Your task to perform on an android device: turn off location history Image 0: 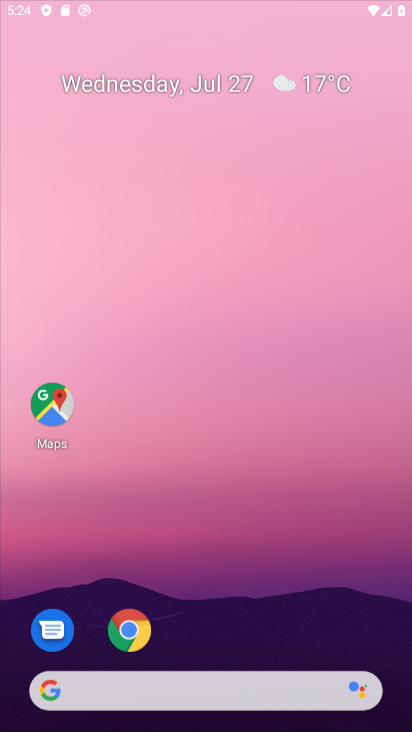
Step 0: press home button
Your task to perform on an android device: turn off location history Image 1: 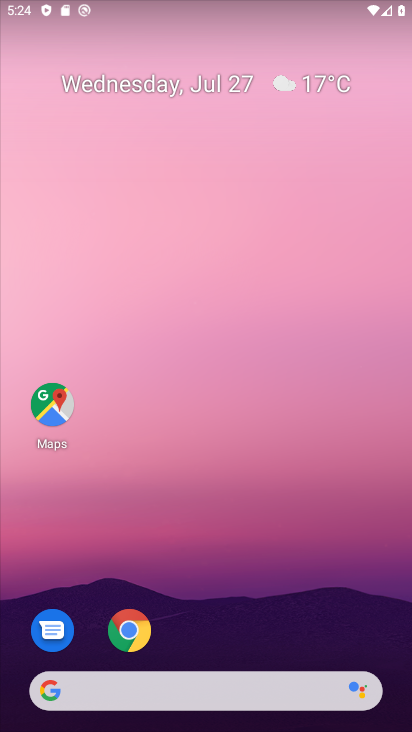
Step 1: drag from (223, 651) to (226, 5)
Your task to perform on an android device: turn off location history Image 2: 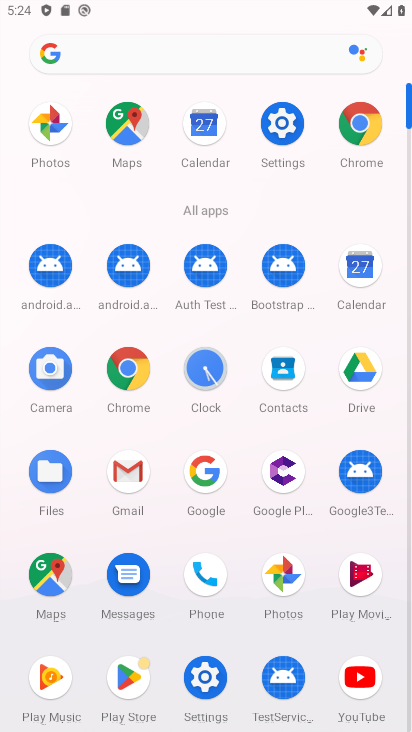
Step 2: click (279, 118)
Your task to perform on an android device: turn off location history Image 3: 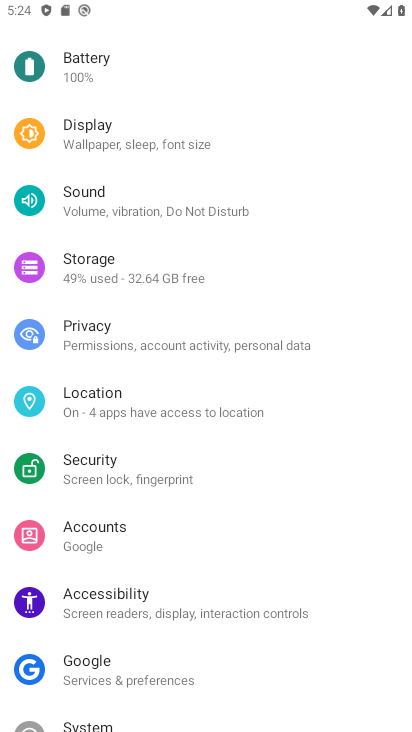
Step 3: click (133, 393)
Your task to perform on an android device: turn off location history Image 4: 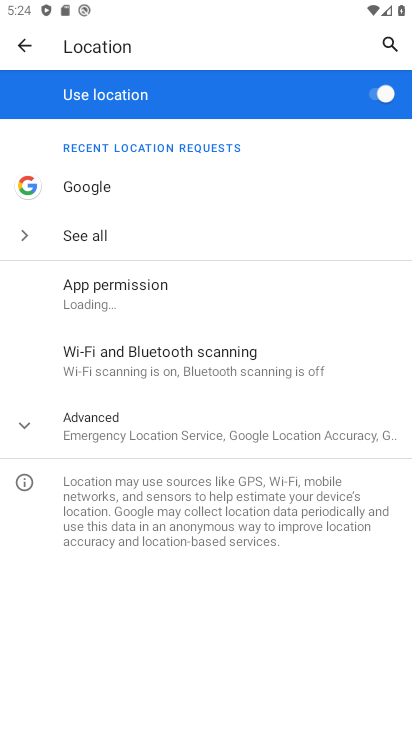
Step 4: click (28, 422)
Your task to perform on an android device: turn off location history Image 5: 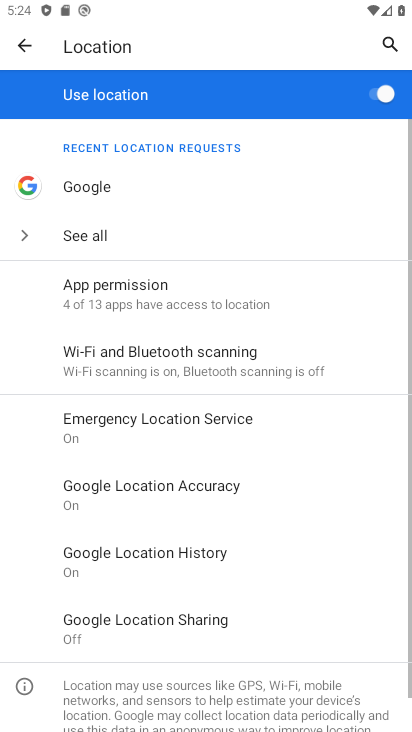
Step 5: click (226, 557)
Your task to perform on an android device: turn off location history Image 6: 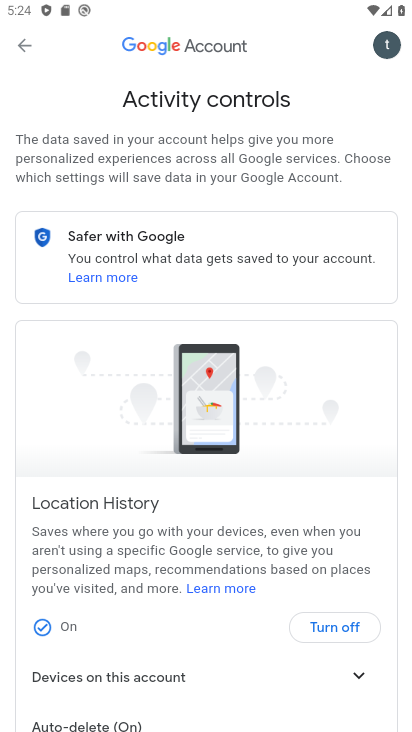
Step 6: click (332, 630)
Your task to perform on an android device: turn off location history Image 7: 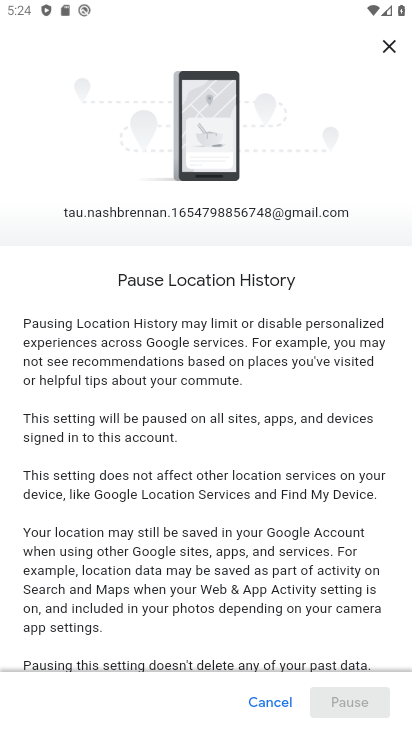
Step 7: drag from (275, 619) to (249, 209)
Your task to perform on an android device: turn off location history Image 8: 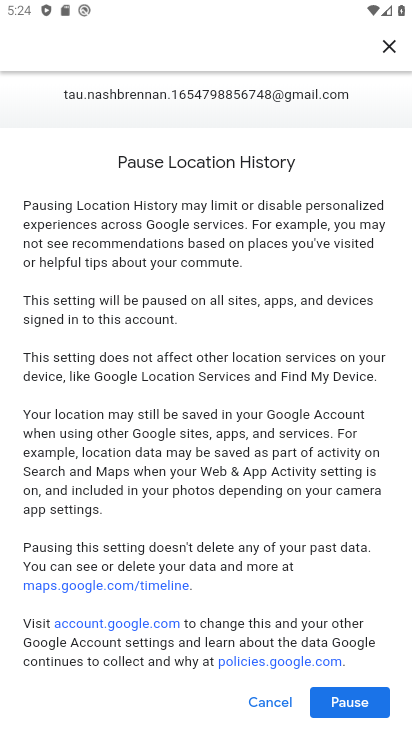
Step 8: click (348, 706)
Your task to perform on an android device: turn off location history Image 9: 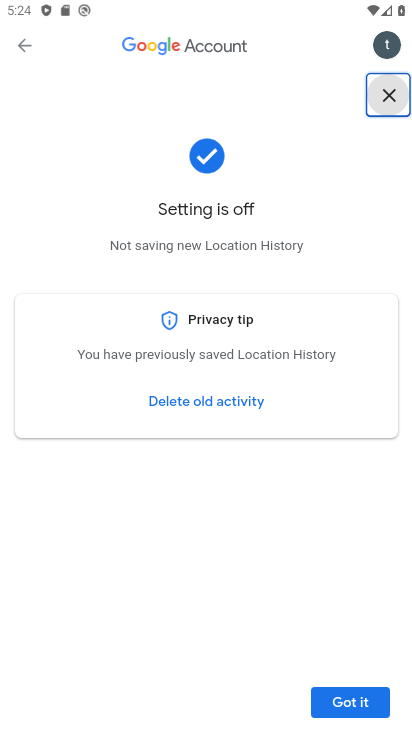
Step 9: task complete